Your task to perform on an android device: turn off airplane mode Image 0: 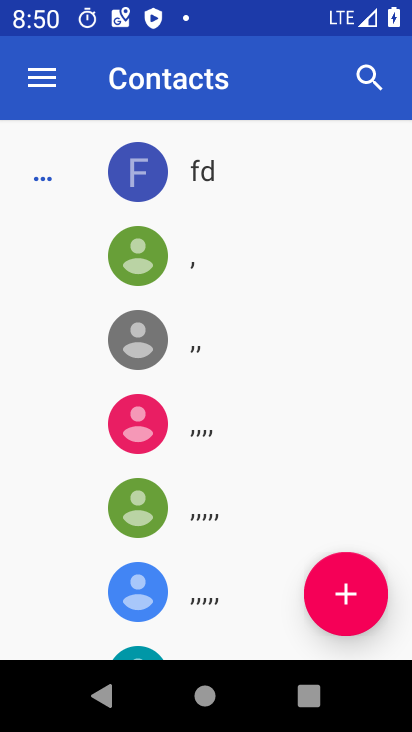
Step 0: press home button
Your task to perform on an android device: turn off airplane mode Image 1: 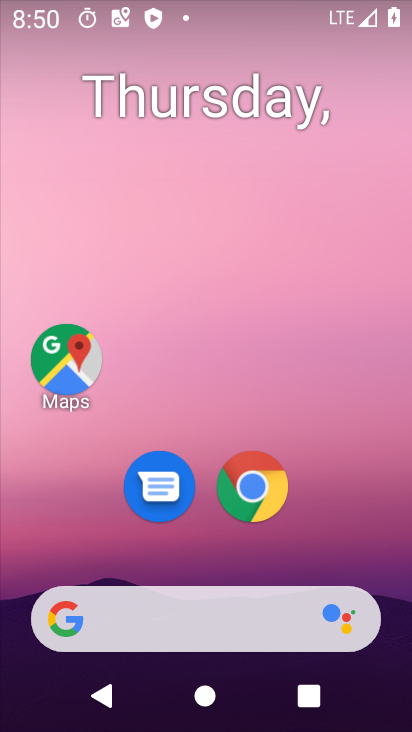
Step 1: drag from (188, 535) to (226, 164)
Your task to perform on an android device: turn off airplane mode Image 2: 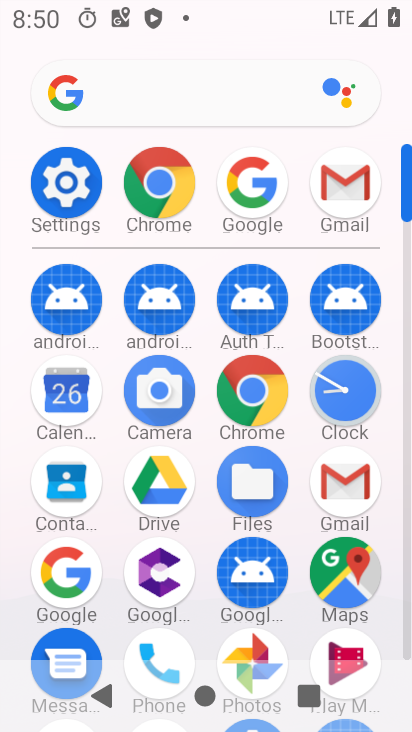
Step 2: click (85, 215)
Your task to perform on an android device: turn off airplane mode Image 3: 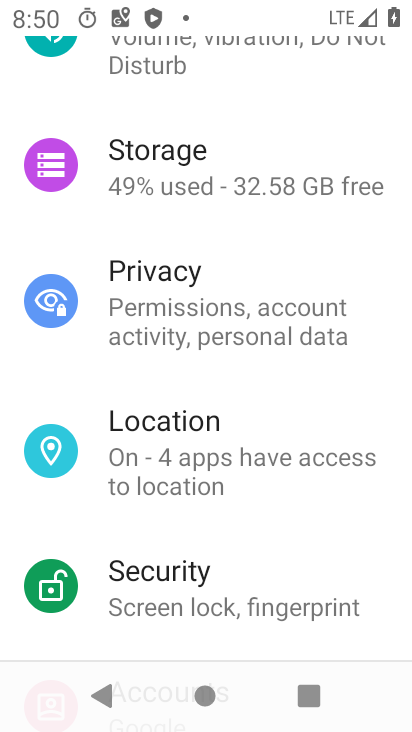
Step 3: drag from (212, 352) to (181, 685)
Your task to perform on an android device: turn off airplane mode Image 4: 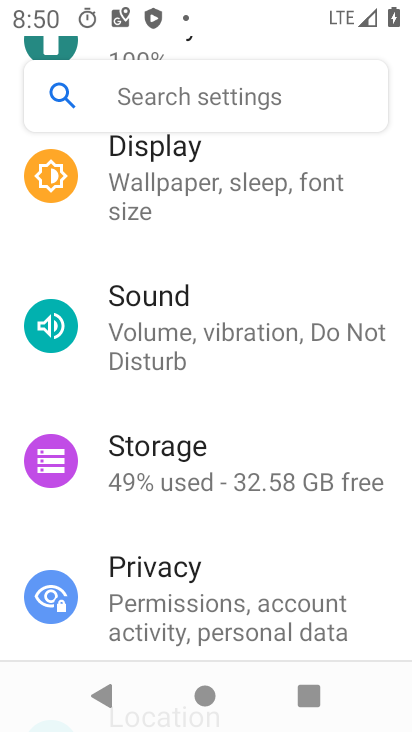
Step 4: drag from (220, 331) to (217, 666)
Your task to perform on an android device: turn off airplane mode Image 5: 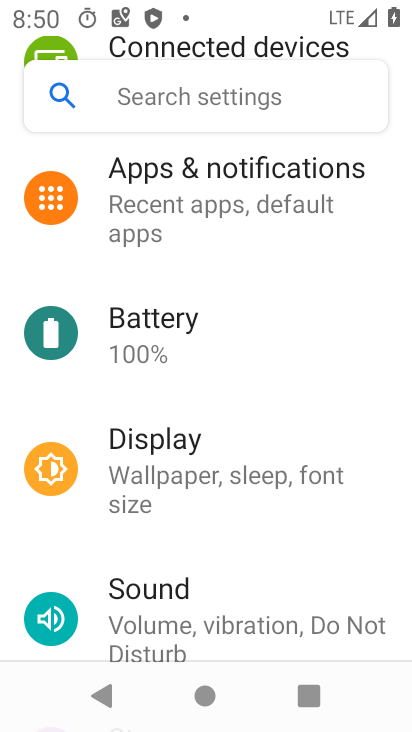
Step 5: drag from (212, 405) to (218, 724)
Your task to perform on an android device: turn off airplane mode Image 6: 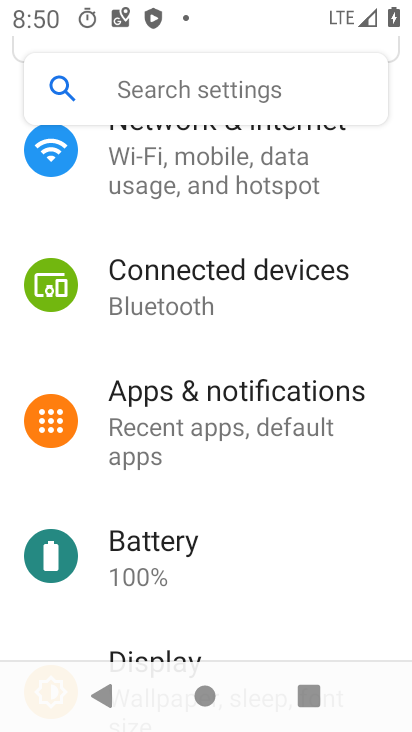
Step 6: drag from (238, 398) to (253, 666)
Your task to perform on an android device: turn off airplane mode Image 7: 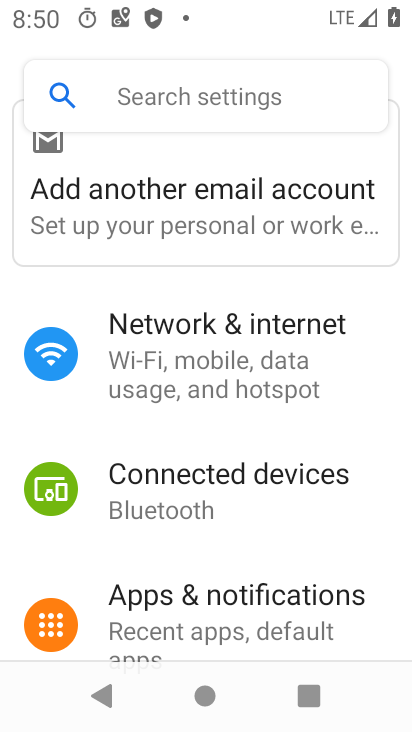
Step 7: click (253, 389)
Your task to perform on an android device: turn off airplane mode Image 8: 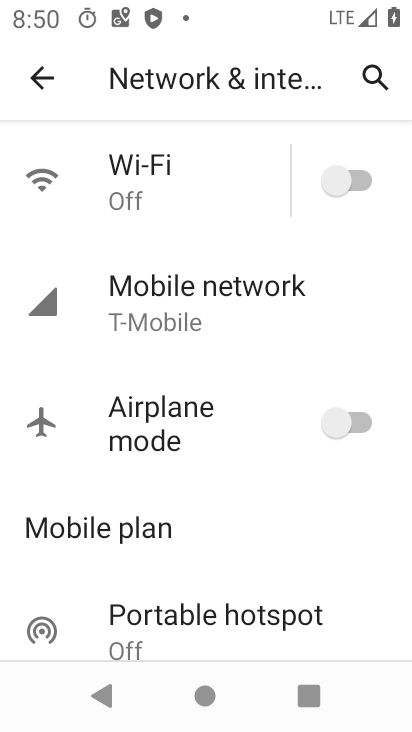
Step 8: task complete